Your task to perform on an android device: empty trash in google photos Image 0: 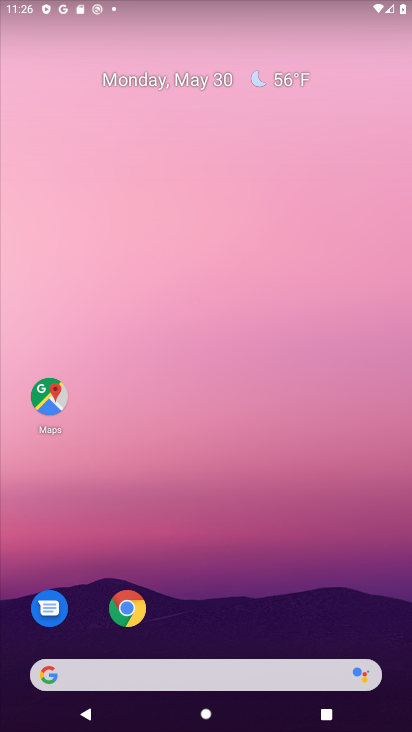
Step 0: drag from (232, 304) to (256, 0)
Your task to perform on an android device: empty trash in google photos Image 1: 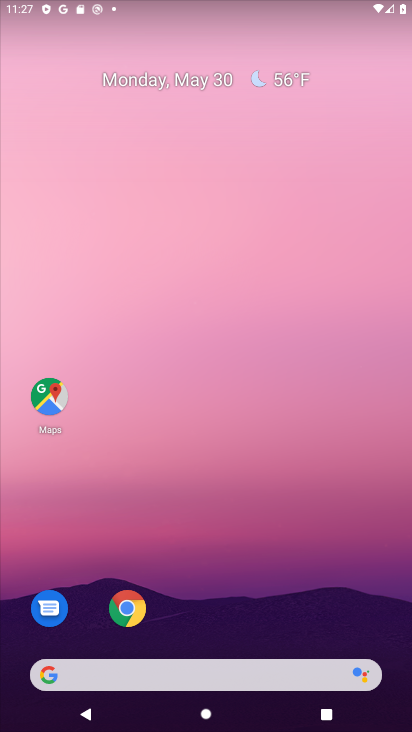
Step 1: drag from (203, 602) to (252, 5)
Your task to perform on an android device: empty trash in google photos Image 2: 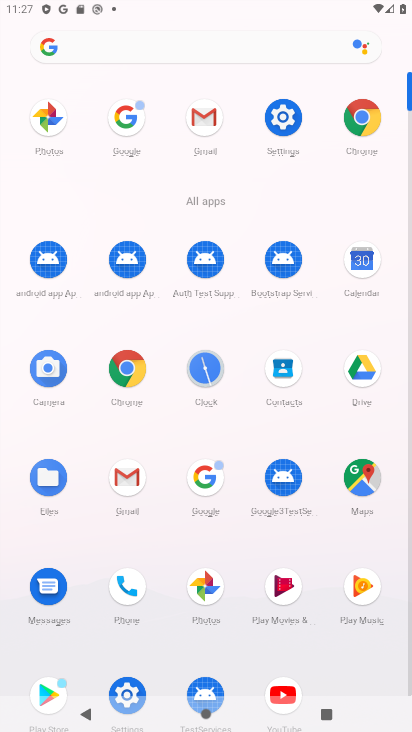
Step 2: click (205, 586)
Your task to perform on an android device: empty trash in google photos Image 3: 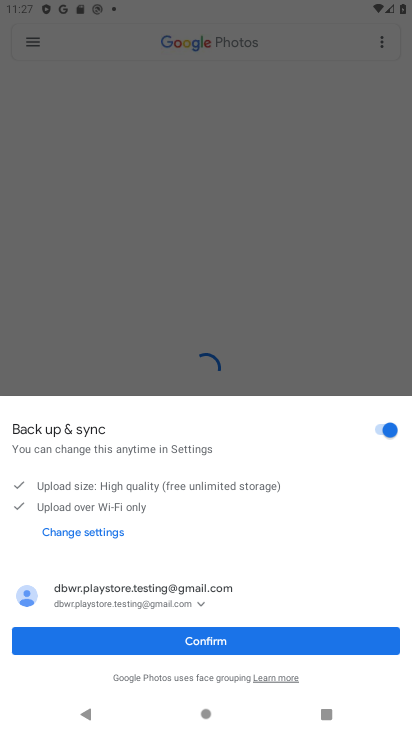
Step 3: click (194, 648)
Your task to perform on an android device: empty trash in google photos Image 4: 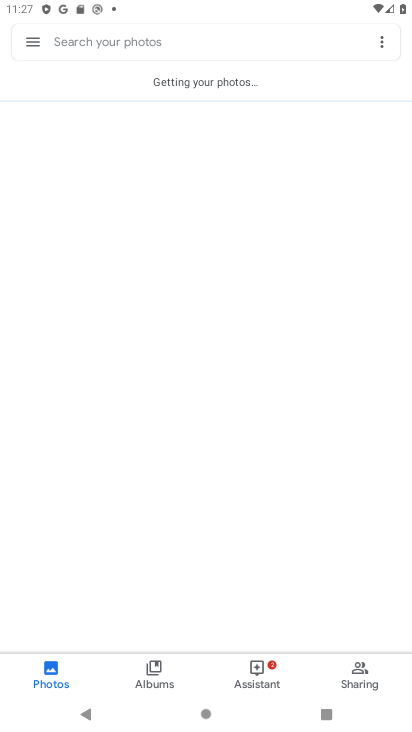
Step 4: click (29, 43)
Your task to perform on an android device: empty trash in google photos Image 5: 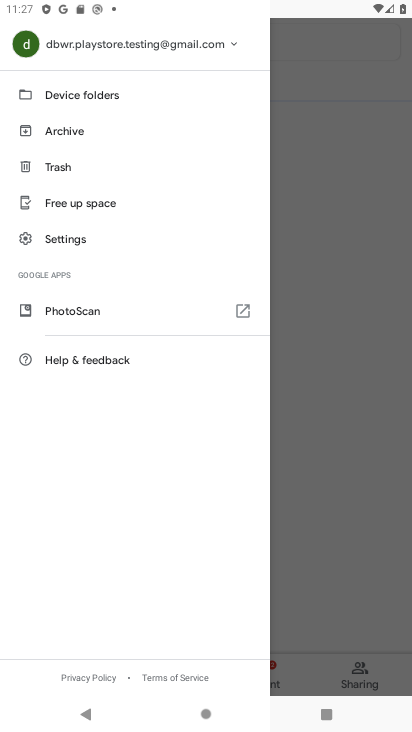
Step 5: click (57, 161)
Your task to perform on an android device: empty trash in google photos Image 6: 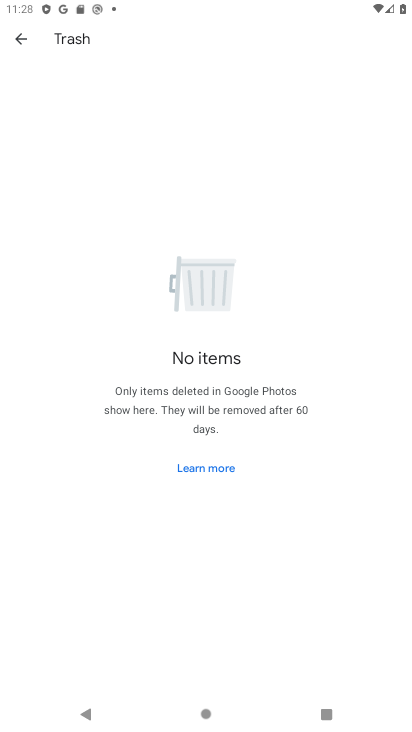
Step 6: task complete